Your task to perform on an android device: Open Android settings Image 0: 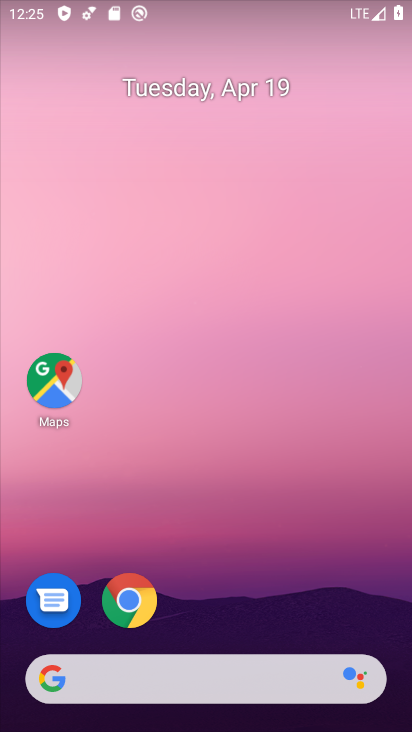
Step 0: drag from (294, 593) to (261, 59)
Your task to perform on an android device: Open Android settings Image 1: 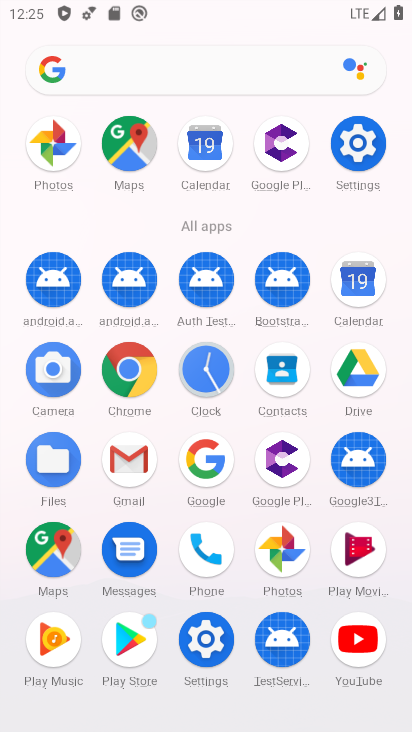
Step 1: click (348, 145)
Your task to perform on an android device: Open Android settings Image 2: 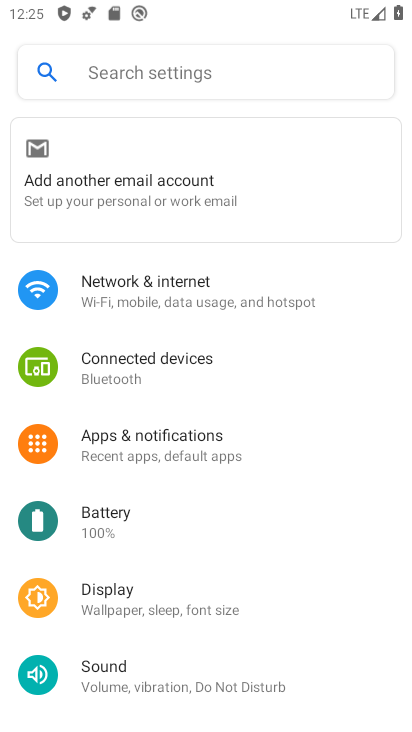
Step 2: task complete